Your task to perform on an android device: see creations saved in the google photos Image 0: 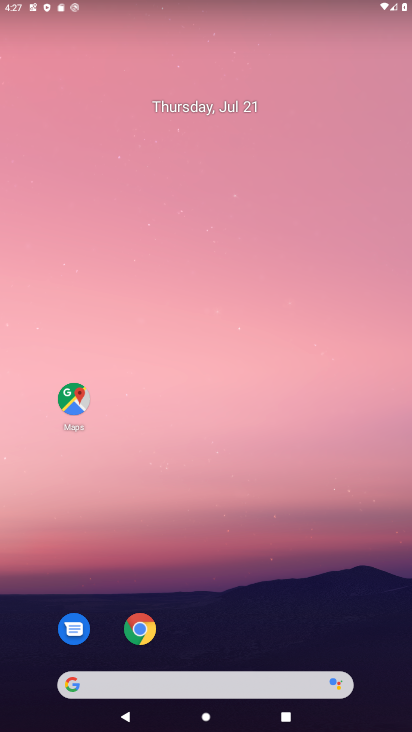
Step 0: drag from (321, 566) to (316, 135)
Your task to perform on an android device: see creations saved in the google photos Image 1: 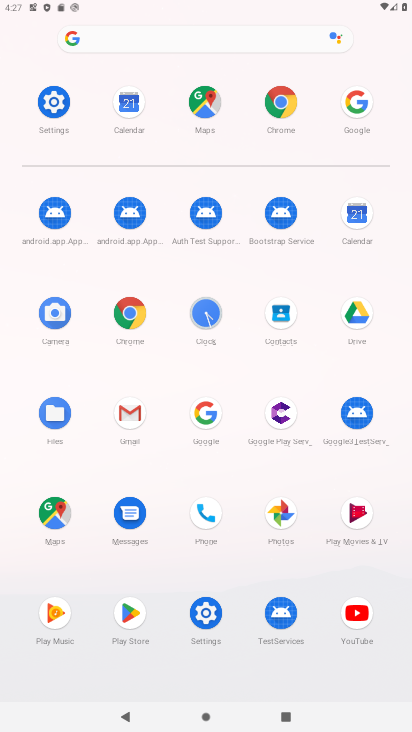
Step 1: click (292, 510)
Your task to perform on an android device: see creations saved in the google photos Image 2: 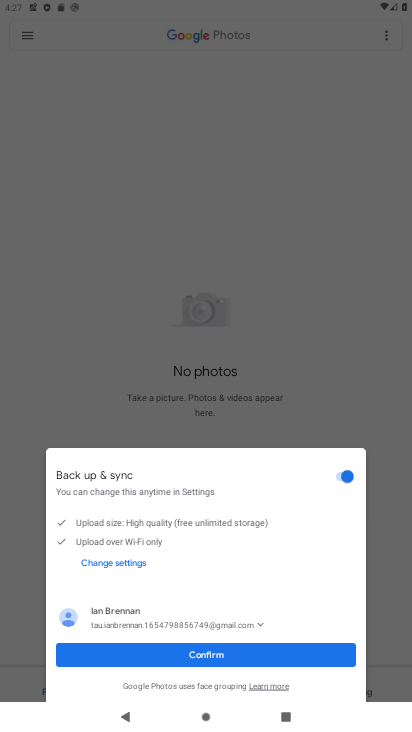
Step 2: click (201, 656)
Your task to perform on an android device: see creations saved in the google photos Image 3: 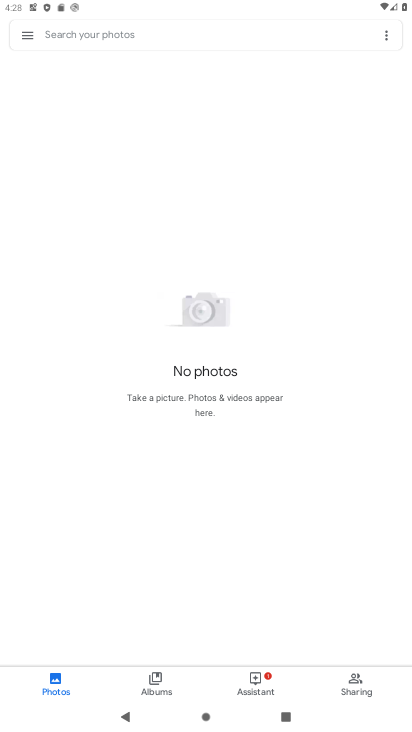
Step 3: click (153, 682)
Your task to perform on an android device: see creations saved in the google photos Image 4: 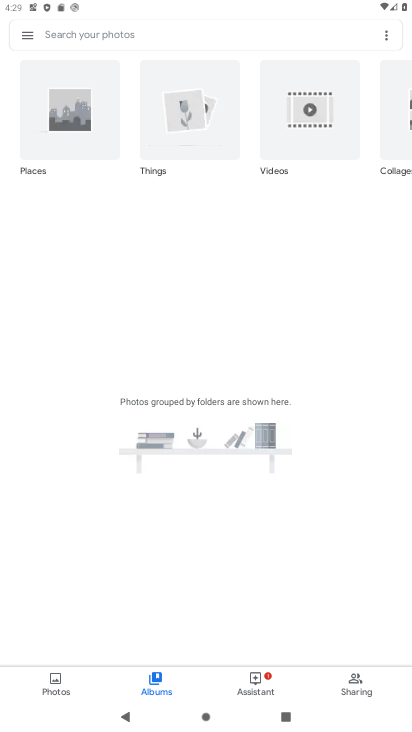
Step 4: task complete